Your task to perform on an android device: toggle sleep mode Image 0: 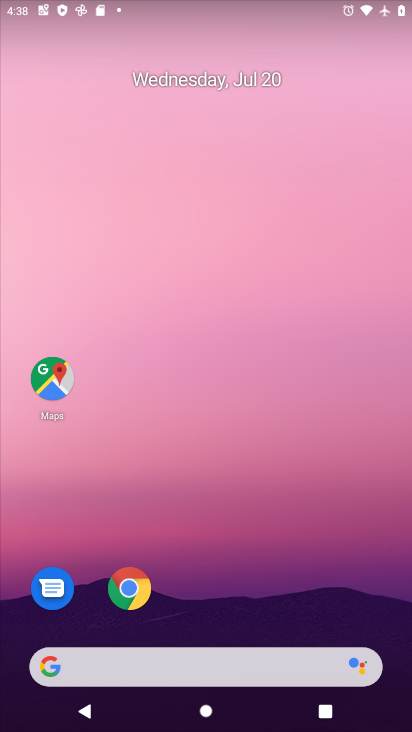
Step 0: drag from (287, 617) to (288, 156)
Your task to perform on an android device: toggle sleep mode Image 1: 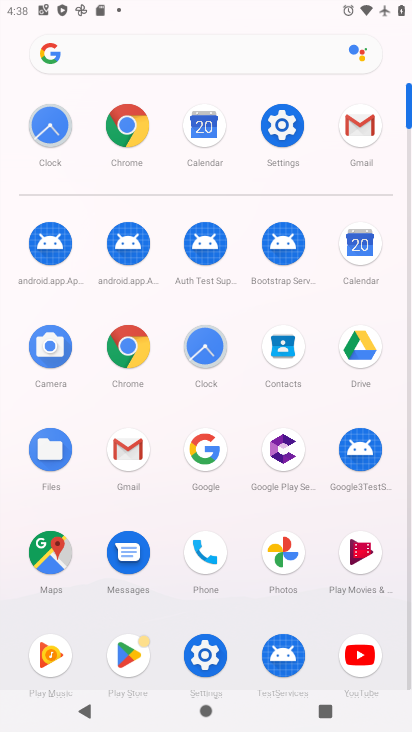
Step 1: click (288, 115)
Your task to perform on an android device: toggle sleep mode Image 2: 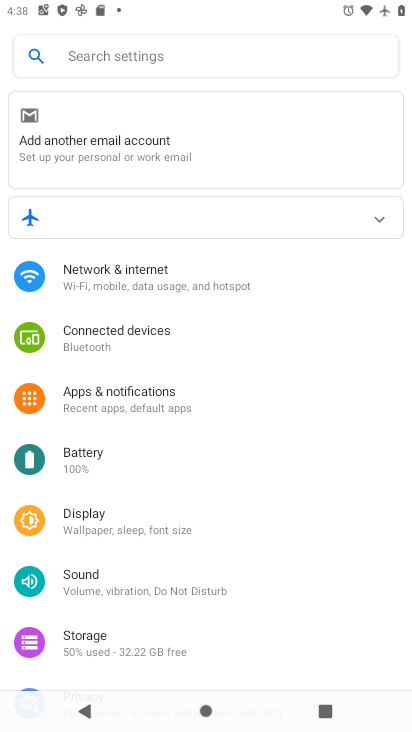
Step 2: click (137, 528)
Your task to perform on an android device: toggle sleep mode Image 3: 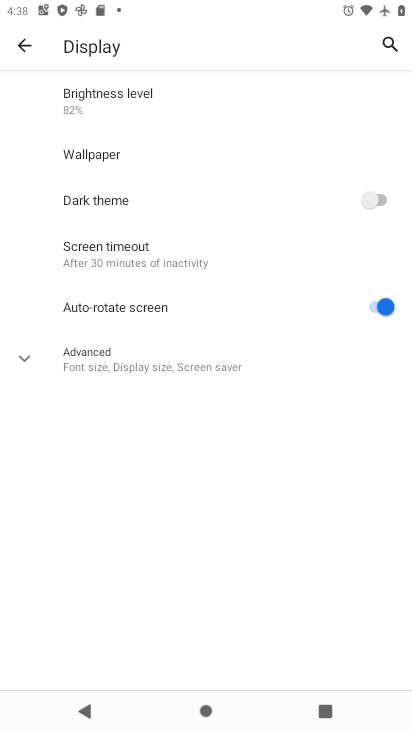
Step 3: click (154, 244)
Your task to perform on an android device: toggle sleep mode Image 4: 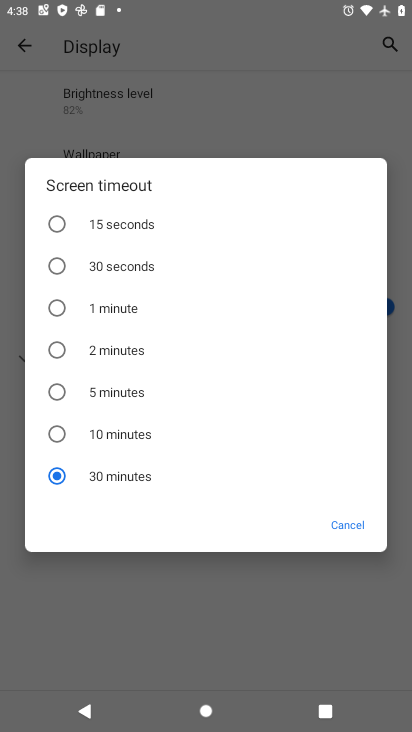
Step 4: click (119, 437)
Your task to perform on an android device: toggle sleep mode Image 5: 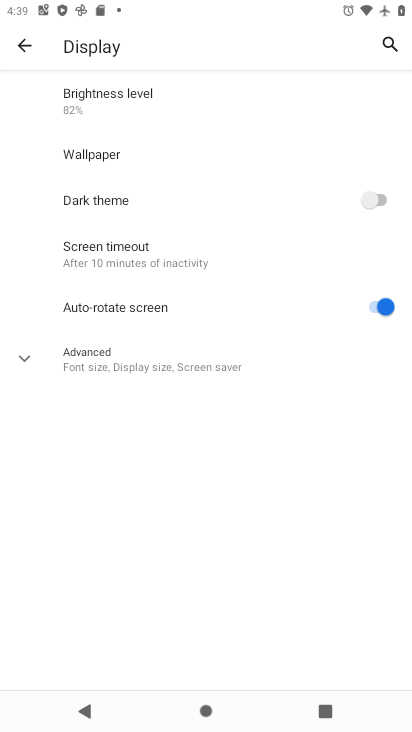
Step 5: task complete